Your task to perform on an android device: visit the assistant section in the google photos Image 0: 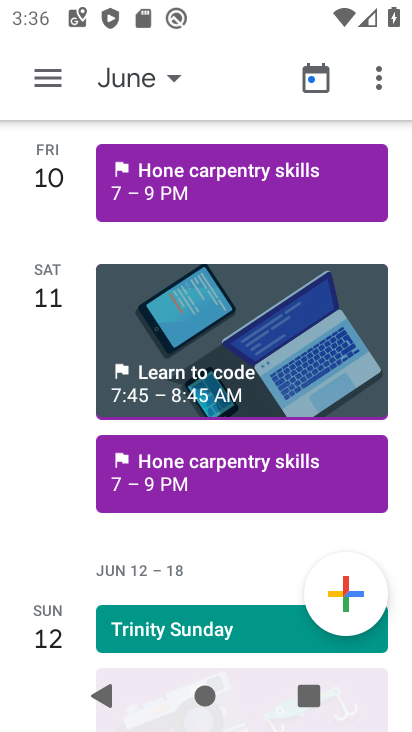
Step 0: drag from (235, 597) to (358, 174)
Your task to perform on an android device: visit the assistant section in the google photos Image 1: 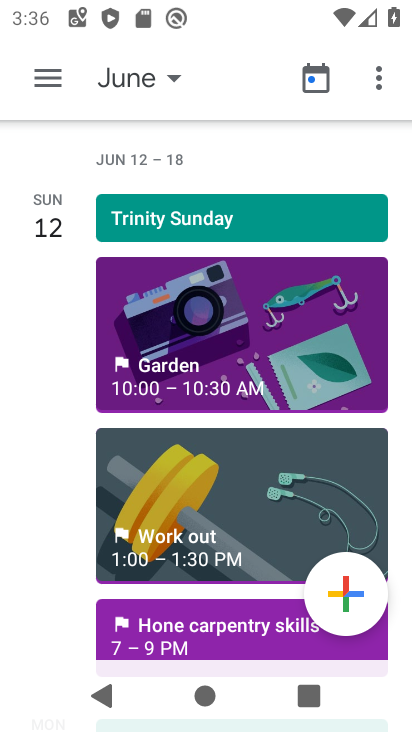
Step 1: press home button
Your task to perform on an android device: visit the assistant section in the google photos Image 2: 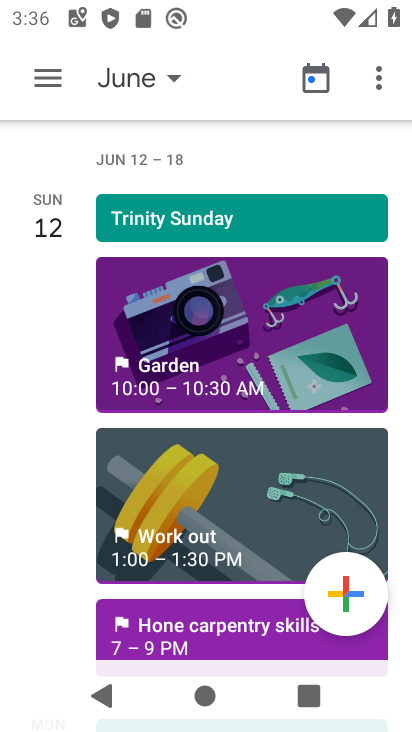
Step 2: press home button
Your task to perform on an android device: visit the assistant section in the google photos Image 3: 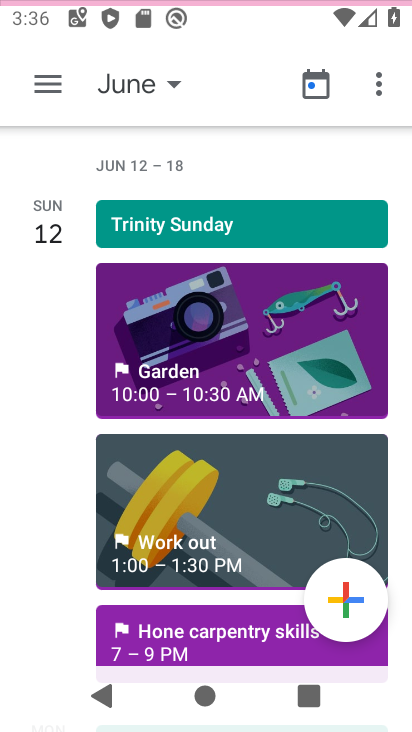
Step 3: drag from (268, 204) to (276, 76)
Your task to perform on an android device: visit the assistant section in the google photos Image 4: 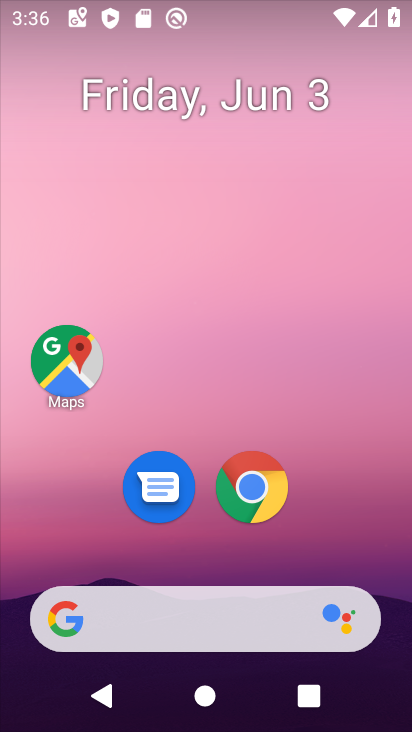
Step 4: drag from (203, 567) to (251, 113)
Your task to perform on an android device: visit the assistant section in the google photos Image 5: 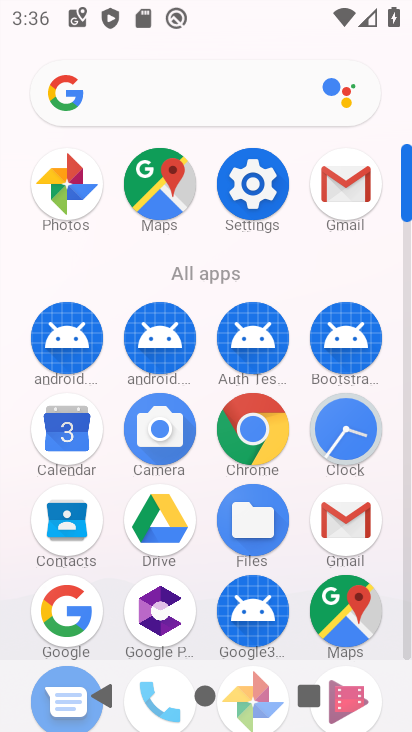
Step 5: drag from (206, 571) to (213, 220)
Your task to perform on an android device: visit the assistant section in the google photos Image 6: 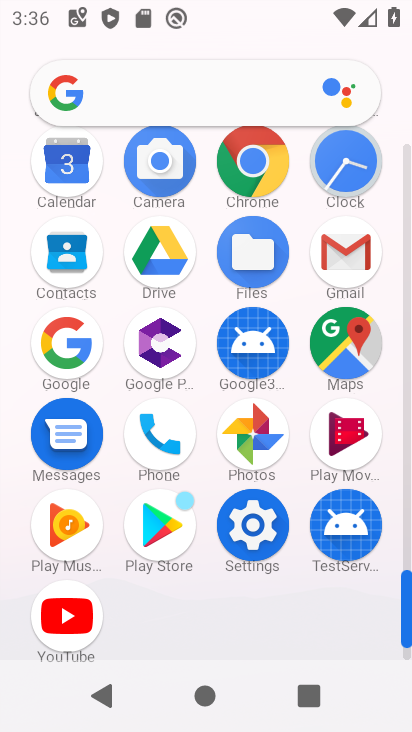
Step 6: click (250, 428)
Your task to perform on an android device: visit the assistant section in the google photos Image 7: 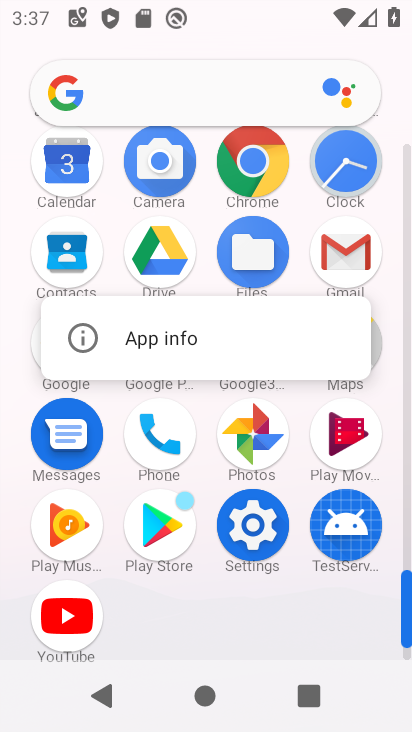
Step 7: click (123, 340)
Your task to perform on an android device: visit the assistant section in the google photos Image 8: 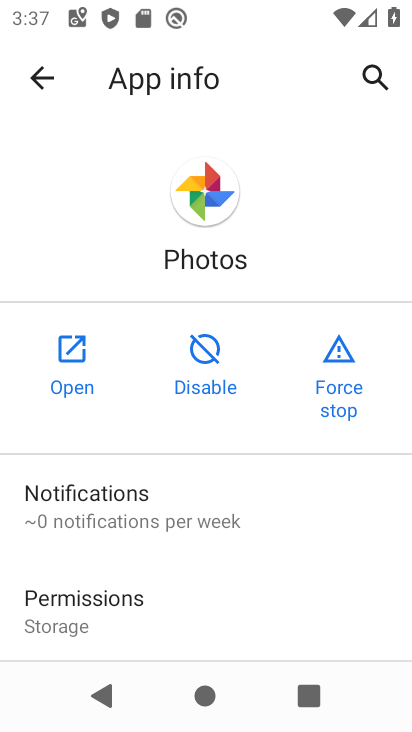
Step 8: click (77, 349)
Your task to perform on an android device: visit the assistant section in the google photos Image 9: 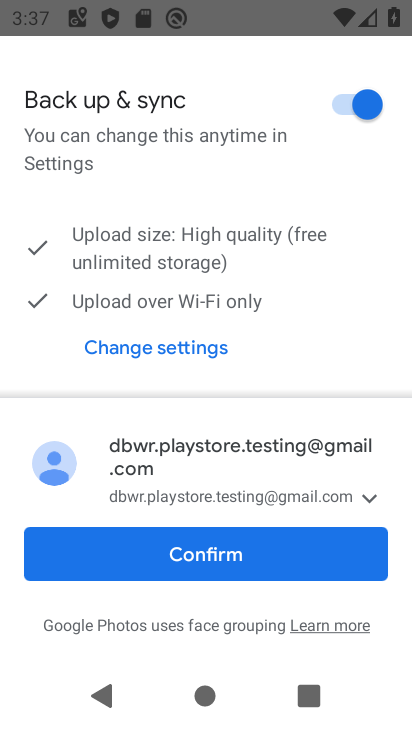
Step 9: click (216, 542)
Your task to perform on an android device: visit the assistant section in the google photos Image 10: 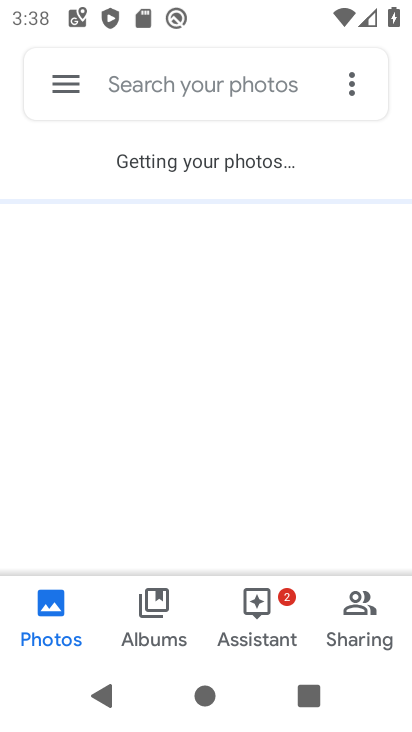
Step 10: click (254, 621)
Your task to perform on an android device: visit the assistant section in the google photos Image 11: 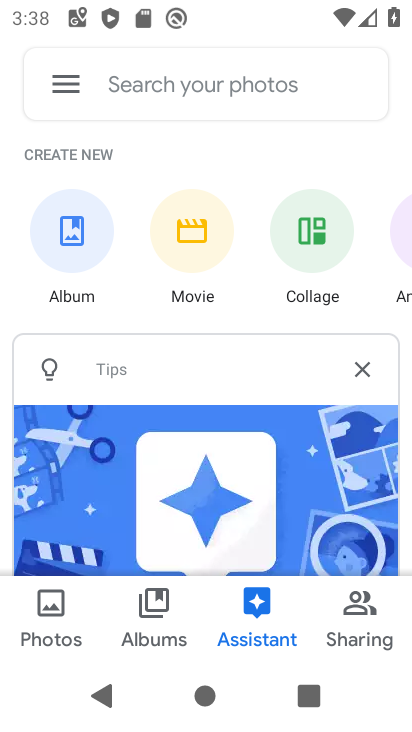
Step 11: task complete